Your task to perform on an android device: refresh tabs in the chrome app Image 0: 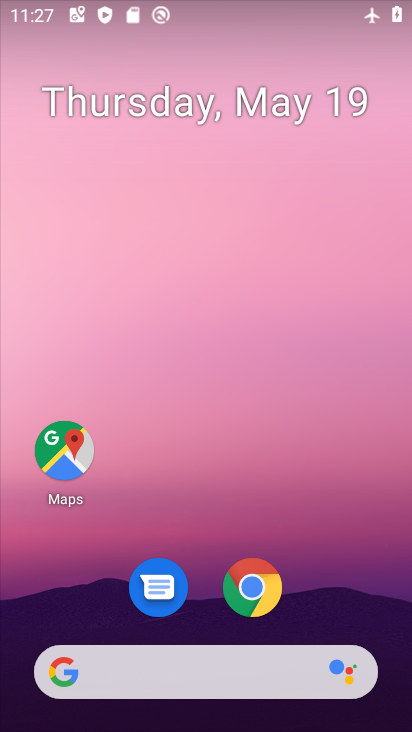
Step 0: click (278, 591)
Your task to perform on an android device: refresh tabs in the chrome app Image 1: 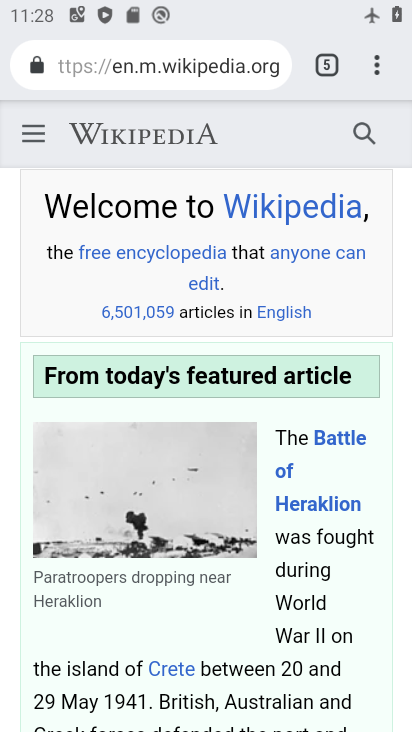
Step 1: click (381, 72)
Your task to perform on an android device: refresh tabs in the chrome app Image 2: 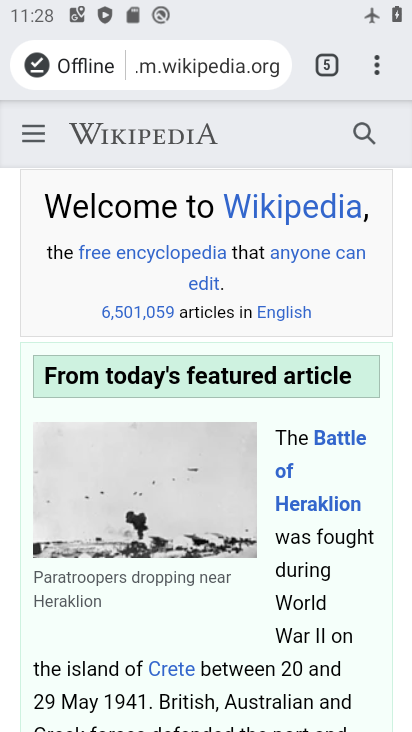
Step 2: task complete